Your task to perform on an android device: Go to Google maps Image 0: 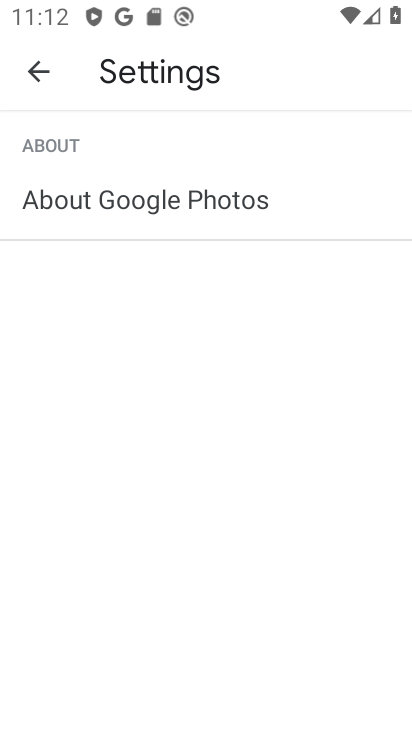
Step 0: press home button
Your task to perform on an android device: Go to Google maps Image 1: 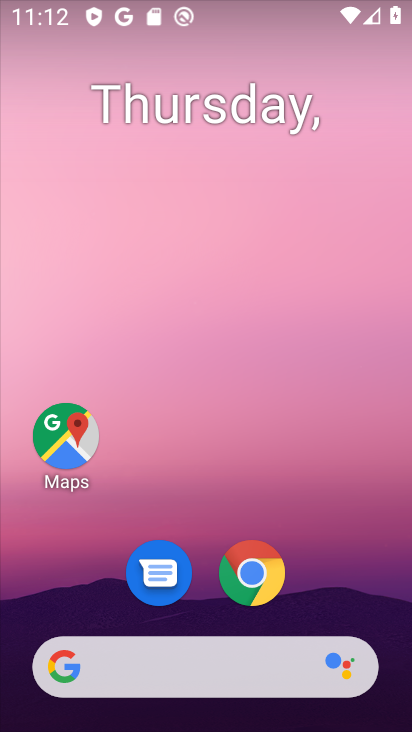
Step 1: click (78, 441)
Your task to perform on an android device: Go to Google maps Image 2: 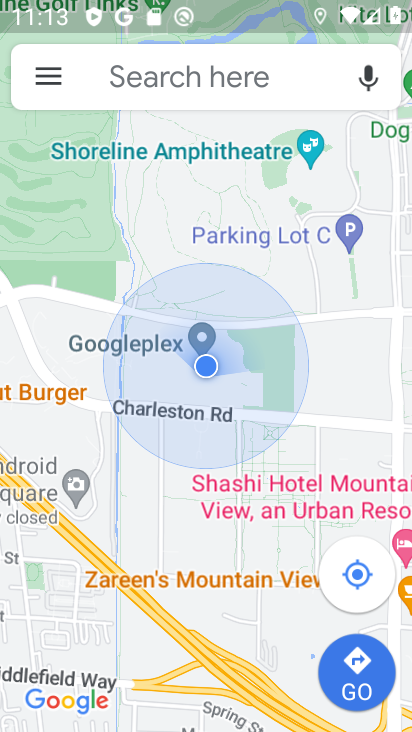
Step 2: task complete